Your task to perform on an android device: Open Google Chrome Image 0: 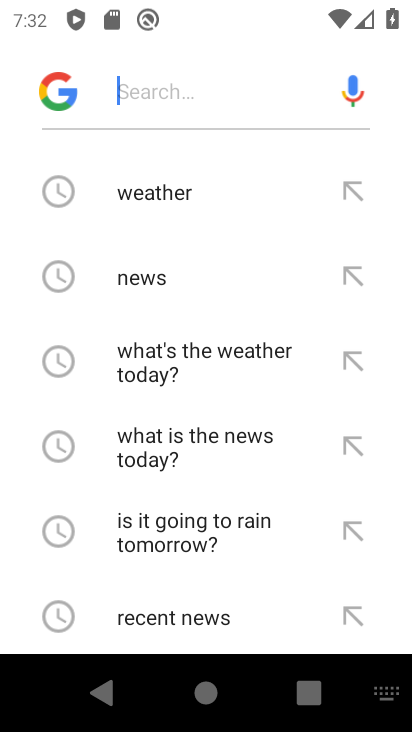
Step 0: press home button
Your task to perform on an android device: Open Google Chrome Image 1: 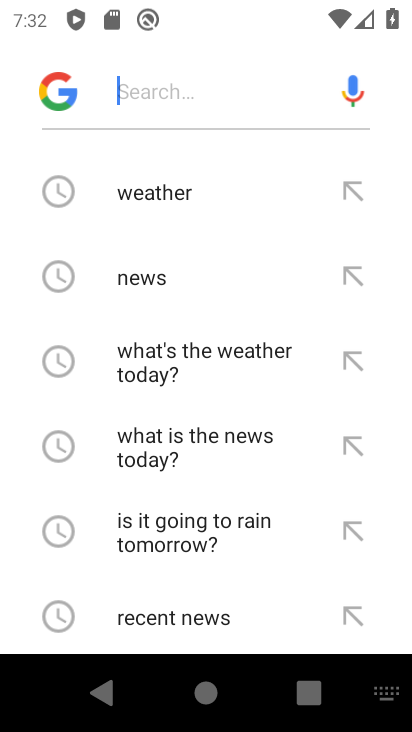
Step 1: drag from (252, 587) to (251, 246)
Your task to perform on an android device: Open Google Chrome Image 2: 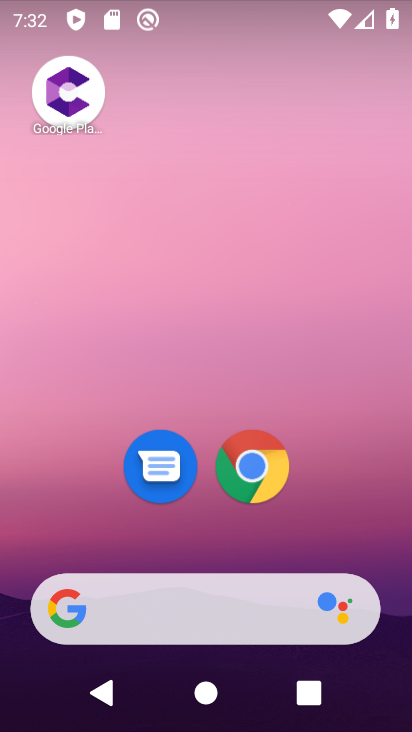
Step 2: drag from (195, 531) to (241, 20)
Your task to perform on an android device: Open Google Chrome Image 3: 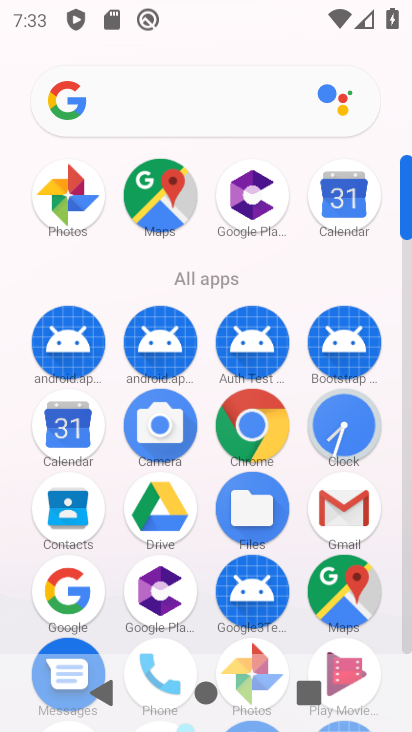
Step 3: click (256, 426)
Your task to perform on an android device: Open Google Chrome Image 4: 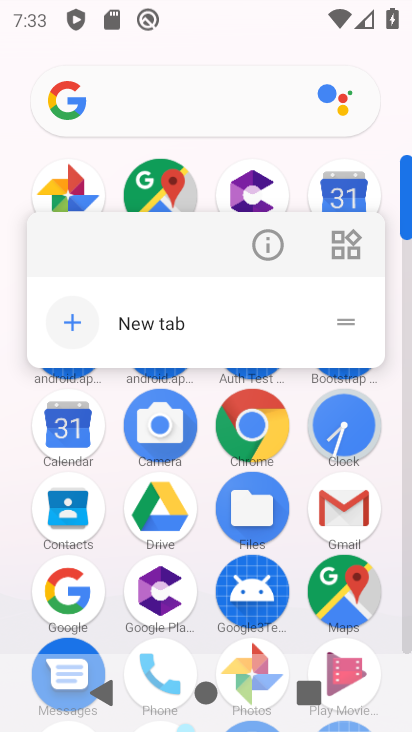
Step 4: click (274, 240)
Your task to perform on an android device: Open Google Chrome Image 5: 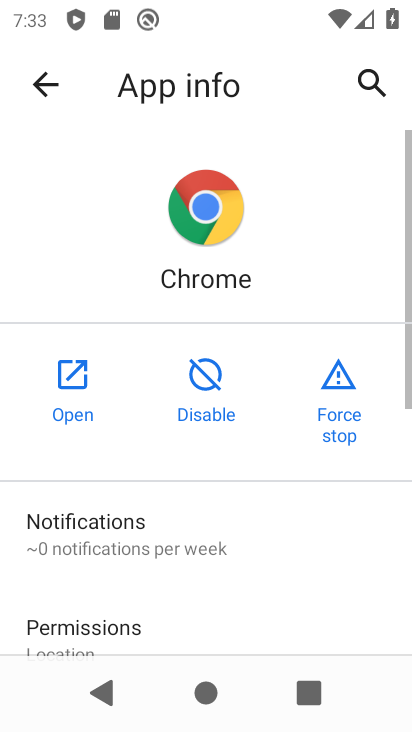
Step 5: click (92, 367)
Your task to perform on an android device: Open Google Chrome Image 6: 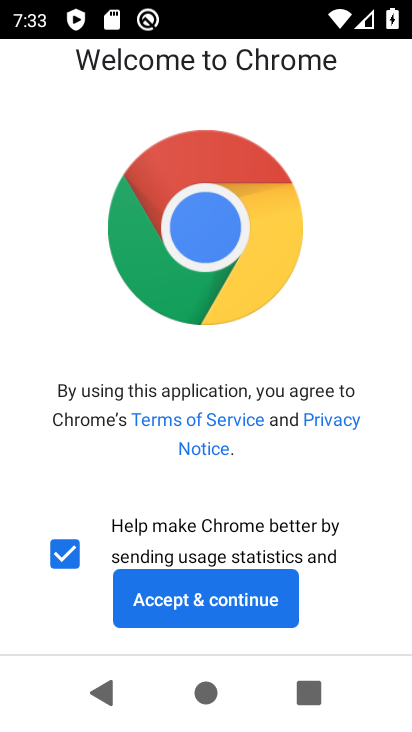
Step 6: click (205, 612)
Your task to perform on an android device: Open Google Chrome Image 7: 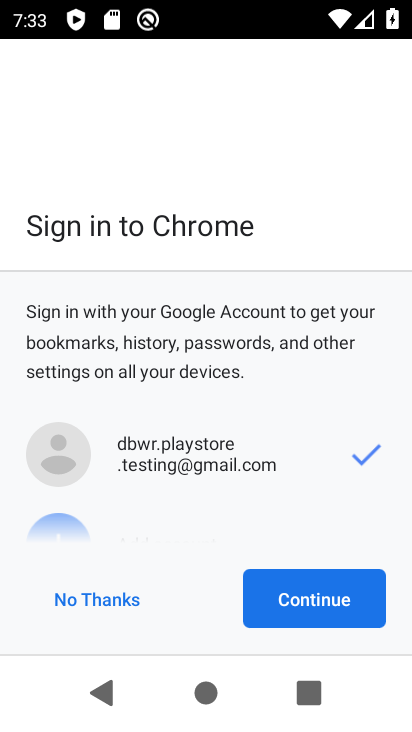
Step 7: click (98, 608)
Your task to perform on an android device: Open Google Chrome Image 8: 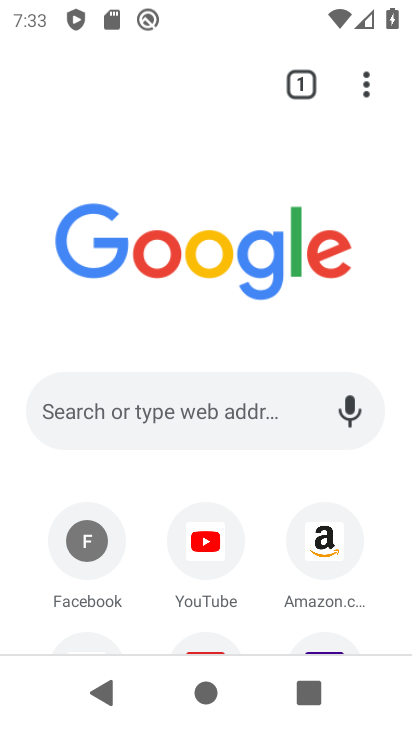
Step 8: task complete